Your task to perform on an android device: empty trash in the gmail app Image 0: 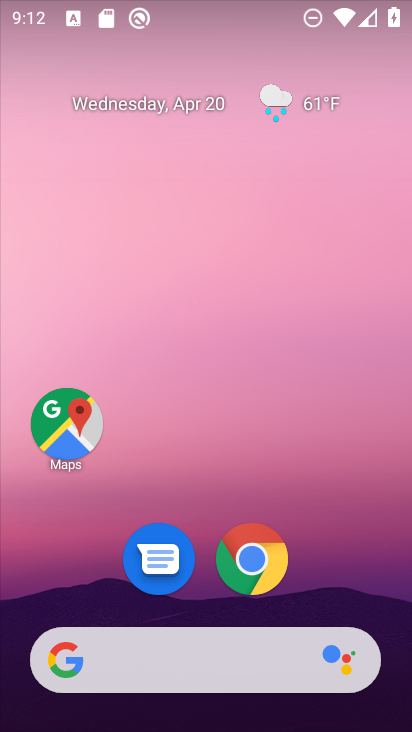
Step 0: drag from (386, 632) to (321, 69)
Your task to perform on an android device: empty trash in the gmail app Image 1: 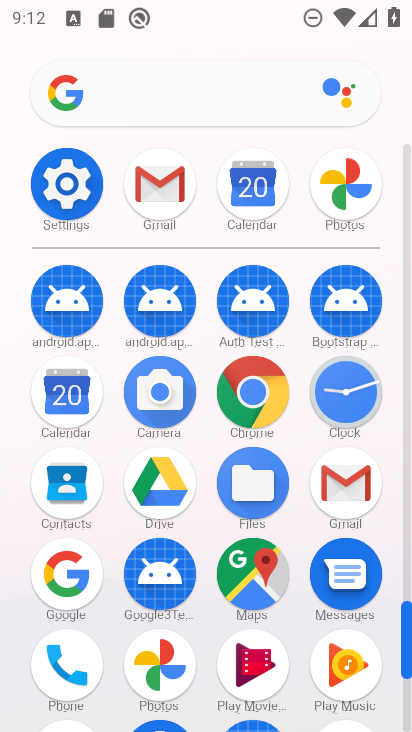
Step 1: click (408, 714)
Your task to perform on an android device: empty trash in the gmail app Image 2: 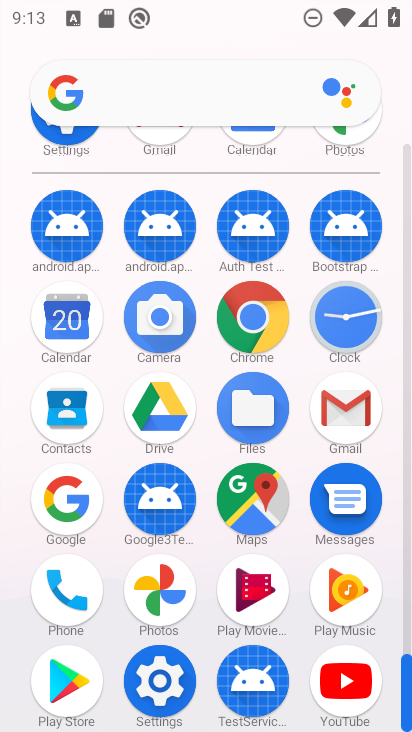
Step 2: click (344, 406)
Your task to perform on an android device: empty trash in the gmail app Image 3: 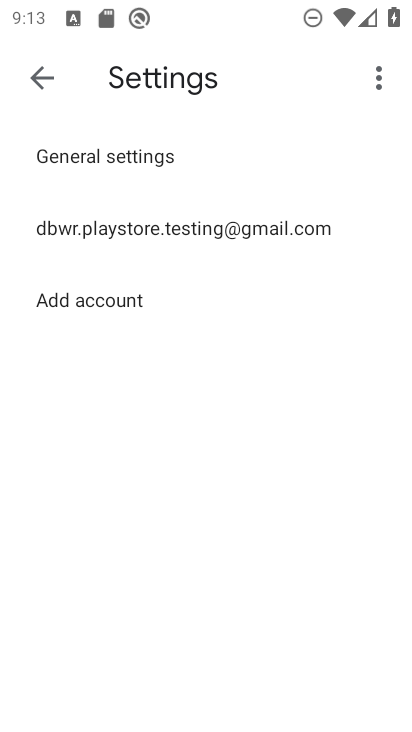
Step 3: press back button
Your task to perform on an android device: empty trash in the gmail app Image 4: 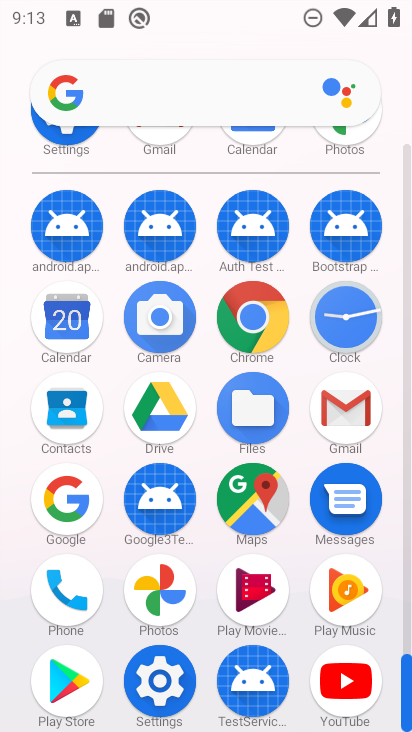
Step 4: click (346, 410)
Your task to perform on an android device: empty trash in the gmail app Image 5: 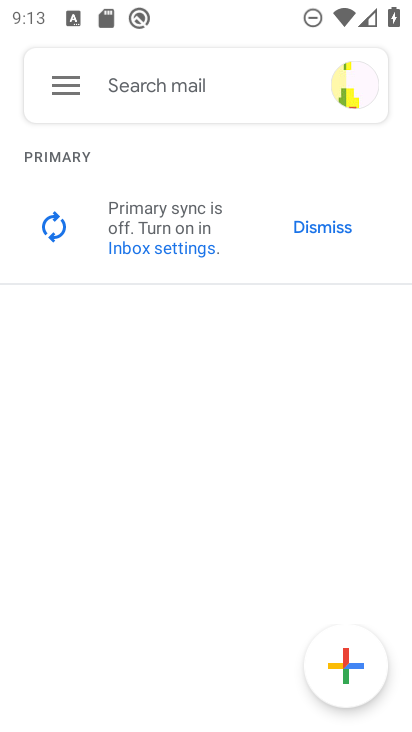
Step 5: click (63, 92)
Your task to perform on an android device: empty trash in the gmail app Image 6: 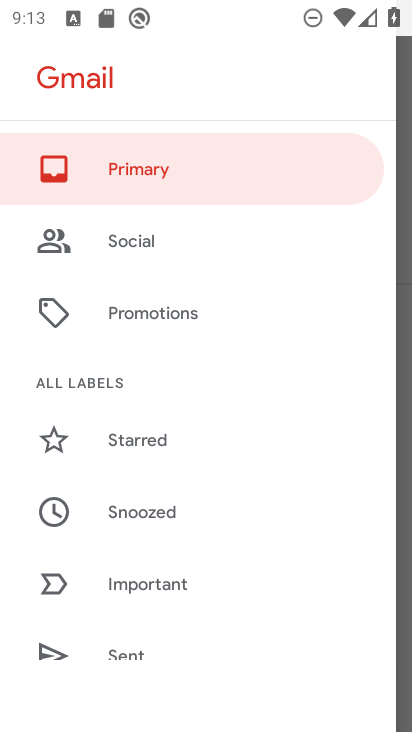
Step 6: drag from (232, 626) to (242, 283)
Your task to perform on an android device: empty trash in the gmail app Image 7: 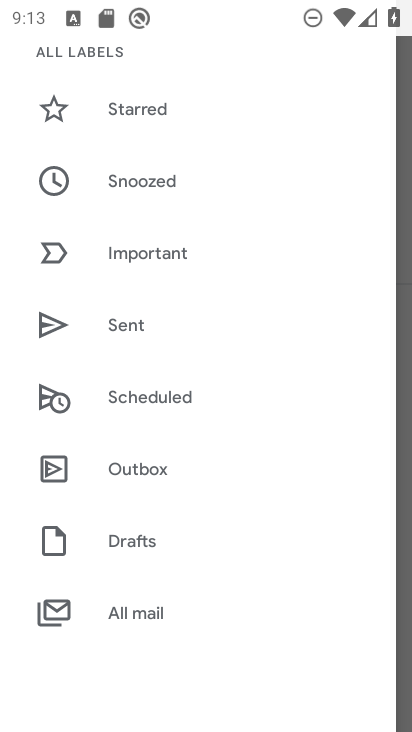
Step 7: drag from (255, 575) to (217, 193)
Your task to perform on an android device: empty trash in the gmail app Image 8: 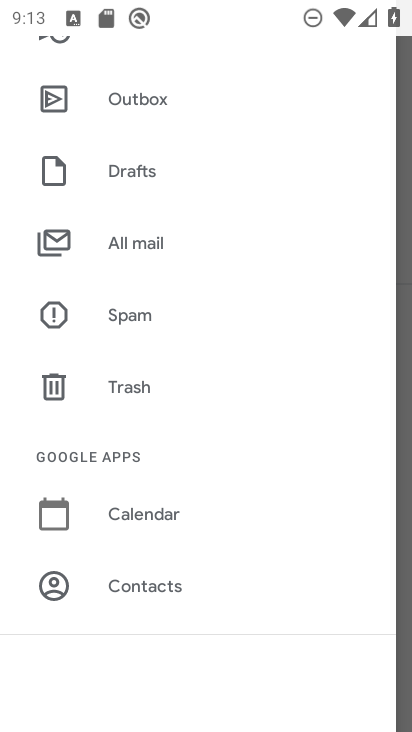
Step 8: click (122, 394)
Your task to perform on an android device: empty trash in the gmail app Image 9: 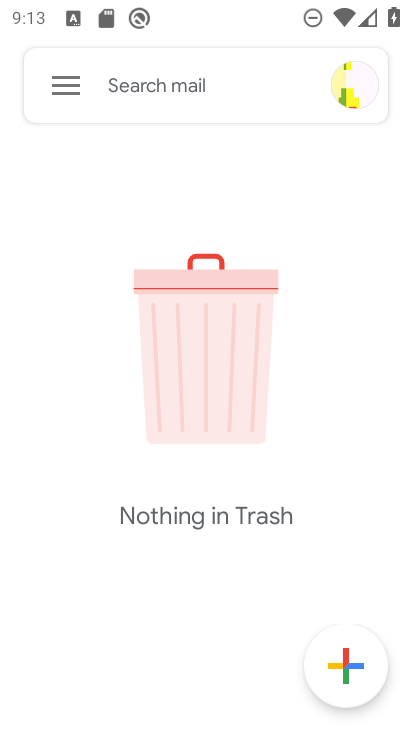
Step 9: task complete